Your task to perform on an android device: turn on priority inbox in the gmail app Image 0: 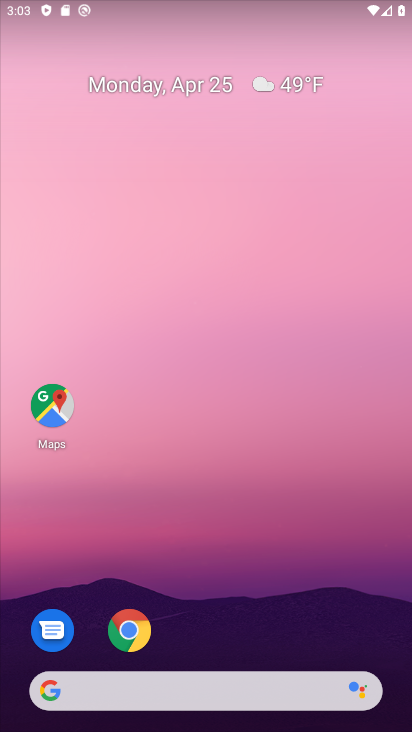
Step 0: drag from (260, 596) to (182, 45)
Your task to perform on an android device: turn on priority inbox in the gmail app Image 1: 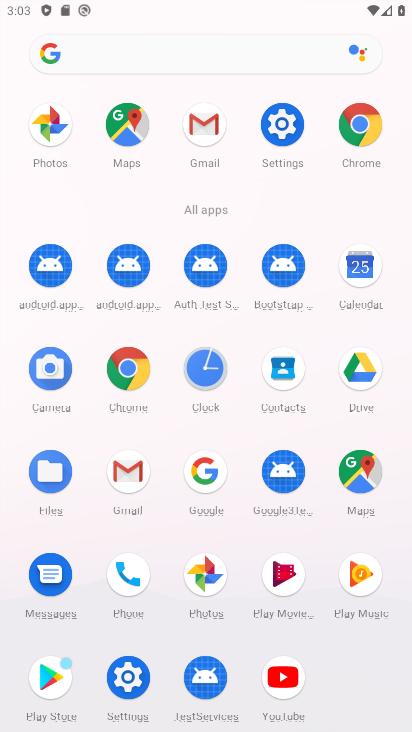
Step 1: click (206, 120)
Your task to perform on an android device: turn on priority inbox in the gmail app Image 2: 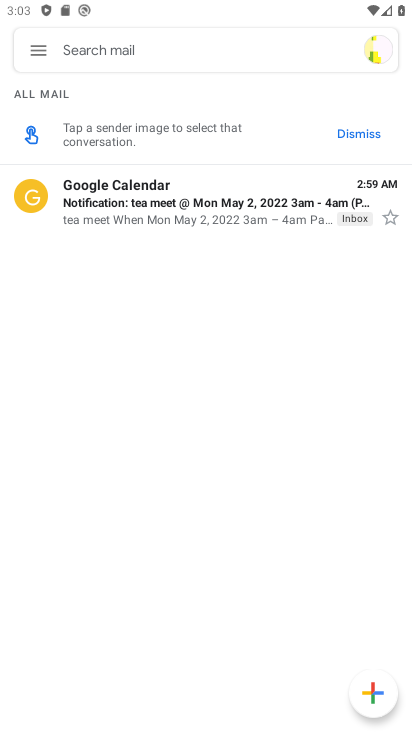
Step 2: click (42, 43)
Your task to perform on an android device: turn on priority inbox in the gmail app Image 3: 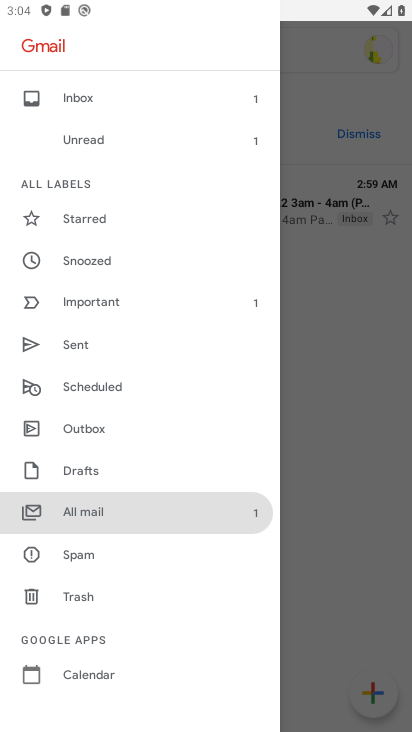
Step 3: drag from (165, 379) to (216, 160)
Your task to perform on an android device: turn on priority inbox in the gmail app Image 4: 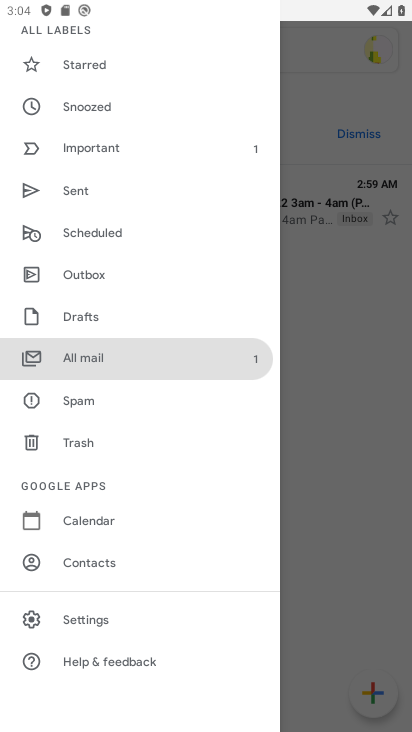
Step 4: click (104, 612)
Your task to perform on an android device: turn on priority inbox in the gmail app Image 5: 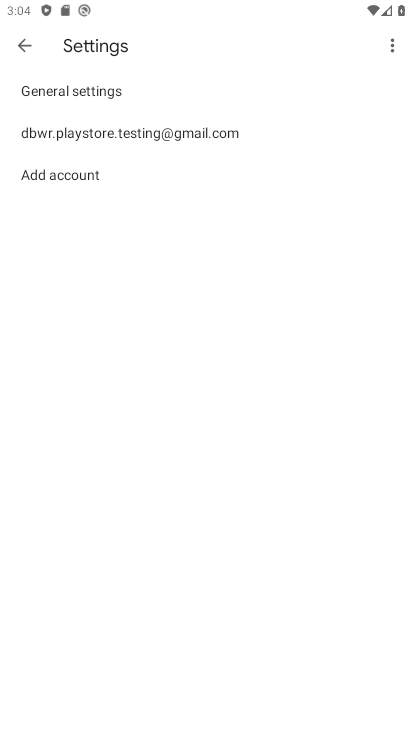
Step 5: click (206, 131)
Your task to perform on an android device: turn on priority inbox in the gmail app Image 6: 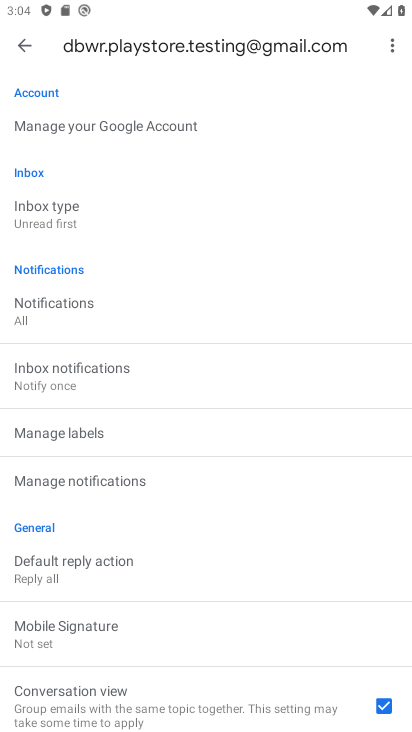
Step 6: click (81, 210)
Your task to perform on an android device: turn on priority inbox in the gmail app Image 7: 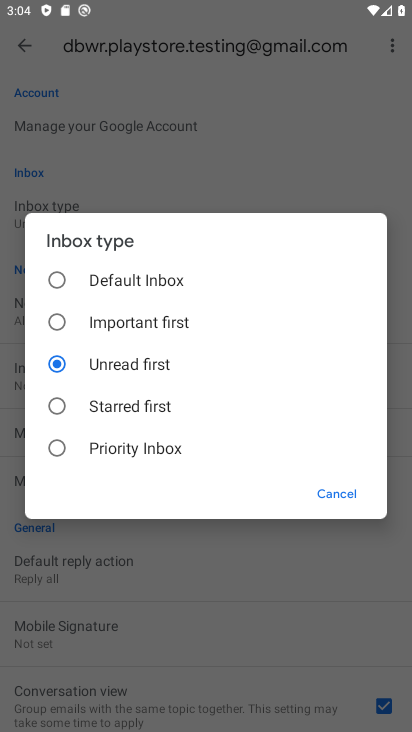
Step 7: click (108, 438)
Your task to perform on an android device: turn on priority inbox in the gmail app Image 8: 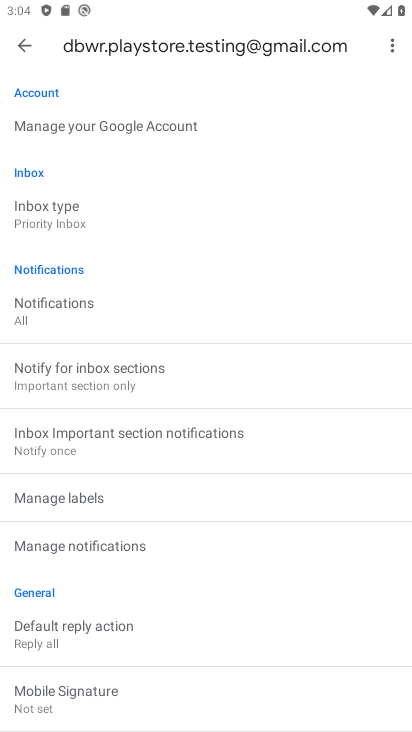
Step 8: task complete